Your task to perform on an android device: Do I have any events tomorrow? Image 0: 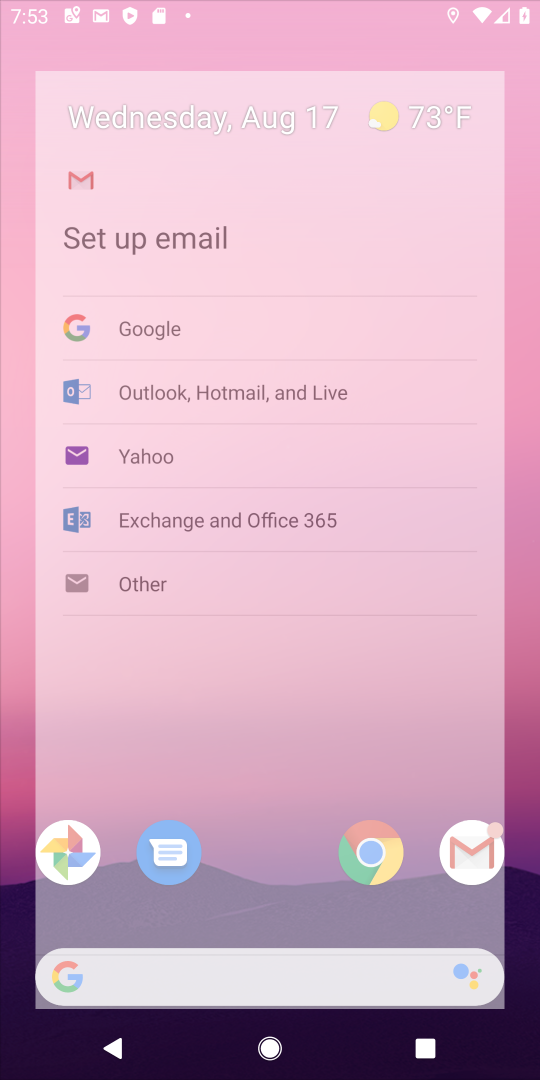
Step 0: press home button
Your task to perform on an android device: Do I have any events tomorrow? Image 1: 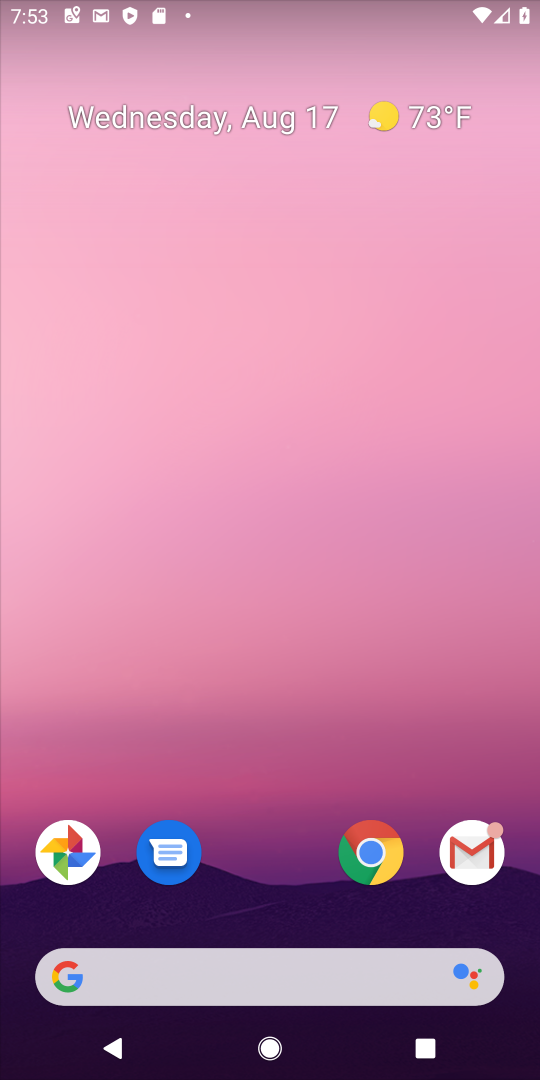
Step 1: drag from (273, 904) to (213, 347)
Your task to perform on an android device: Do I have any events tomorrow? Image 2: 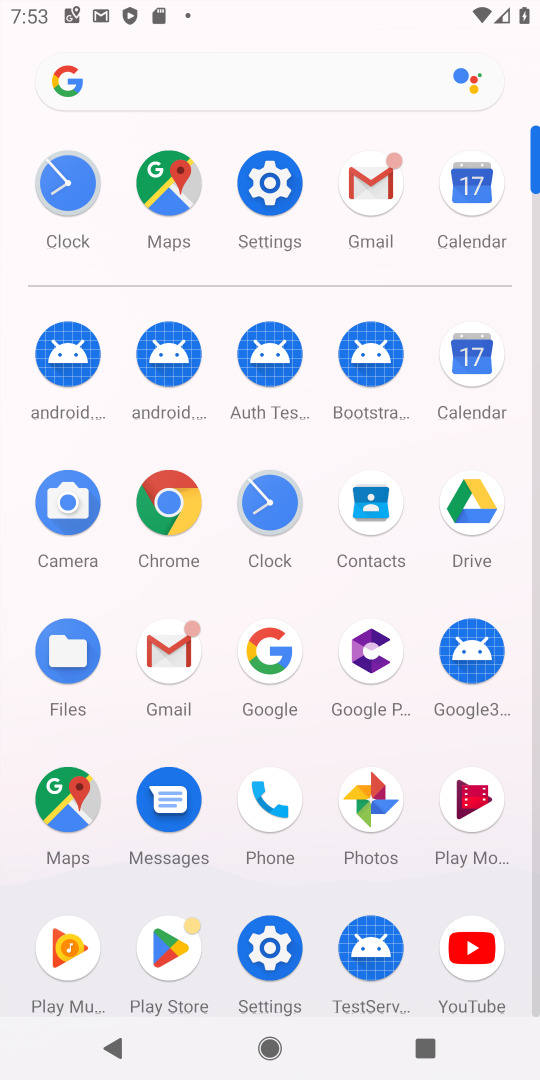
Step 2: click (485, 197)
Your task to perform on an android device: Do I have any events tomorrow? Image 3: 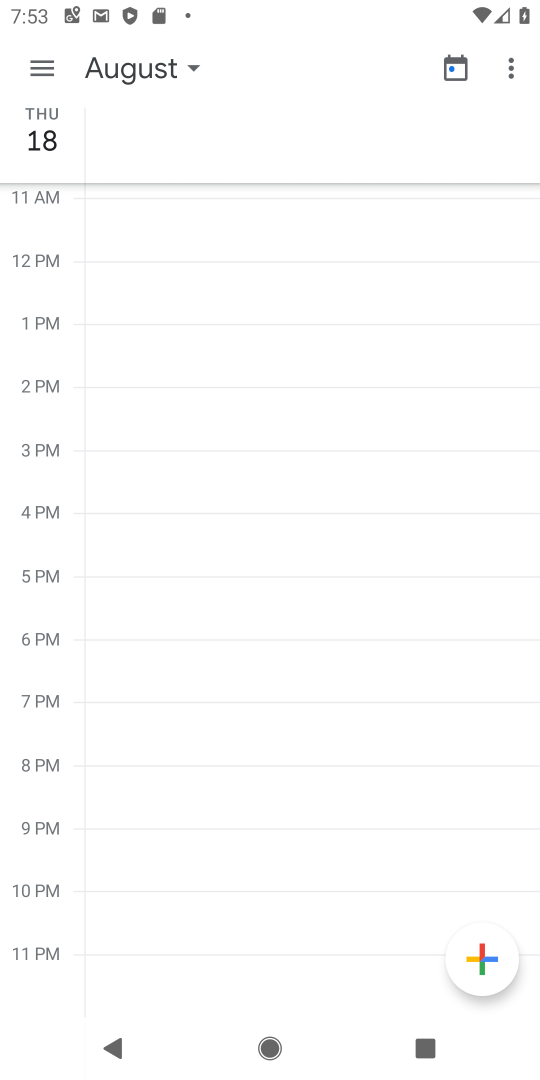
Step 3: click (189, 67)
Your task to perform on an android device: Do I have any events tomorrow? Image 4: 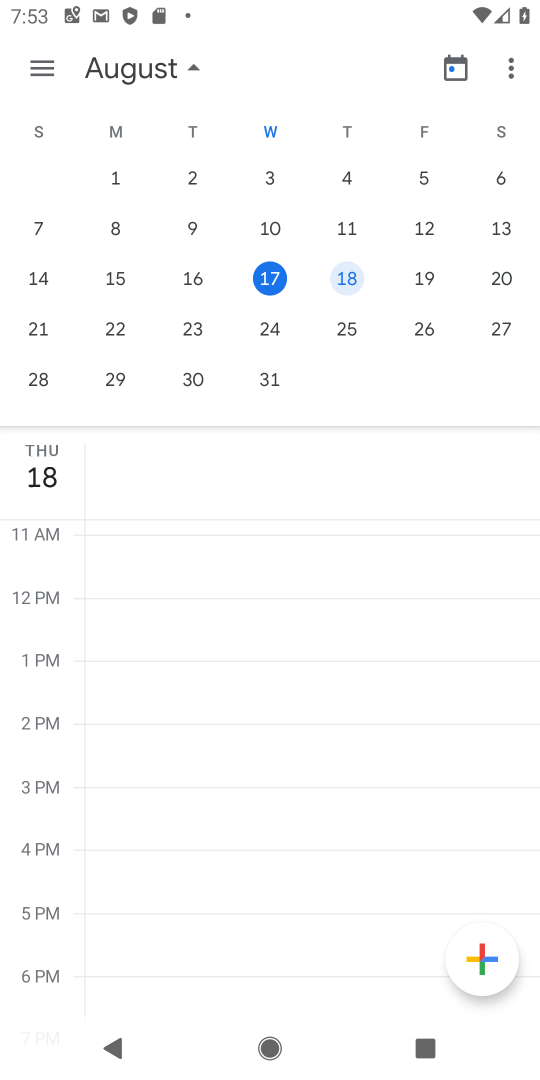
Step 4: click (351, 277)
Your task to perform on an android device: Do I have any events tomorrow? Image 5: 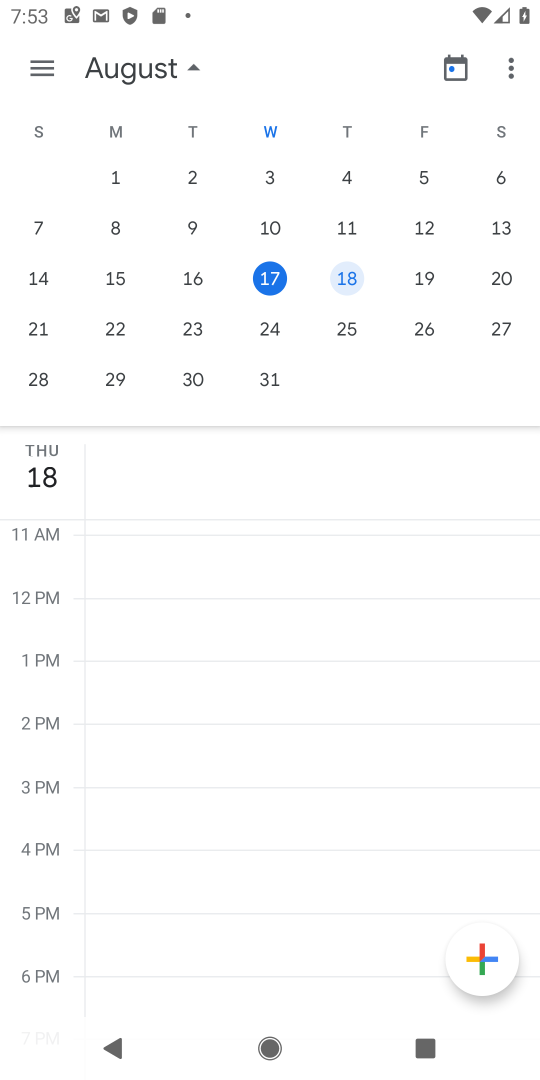
Step 5: click (354, 275)
Your task to perform on an android device: Do I have any events tomorrow? Image 6: 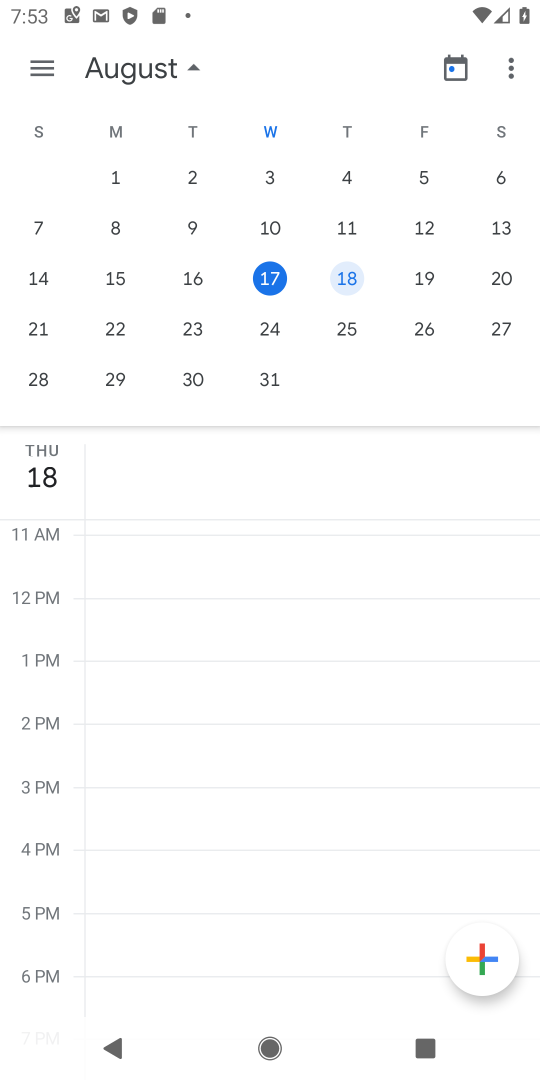
Step 6: task complete